Your task to perform on an android device: turn off javascript in the chrome app Image 0: 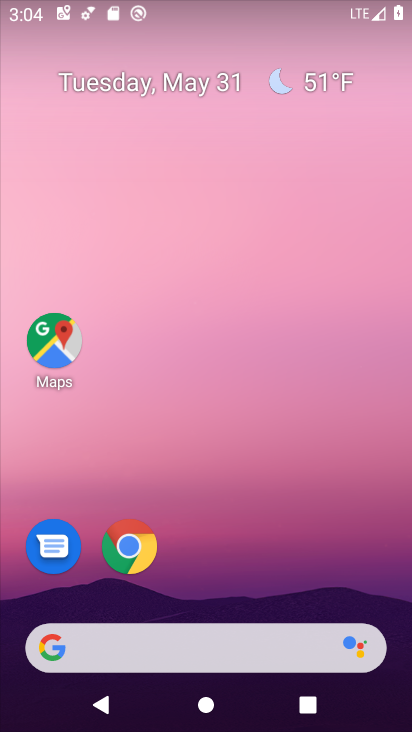
Step 0: click (135, 558)
Your task to perform on an android device: turn off javascript in the chrome app Image 1: 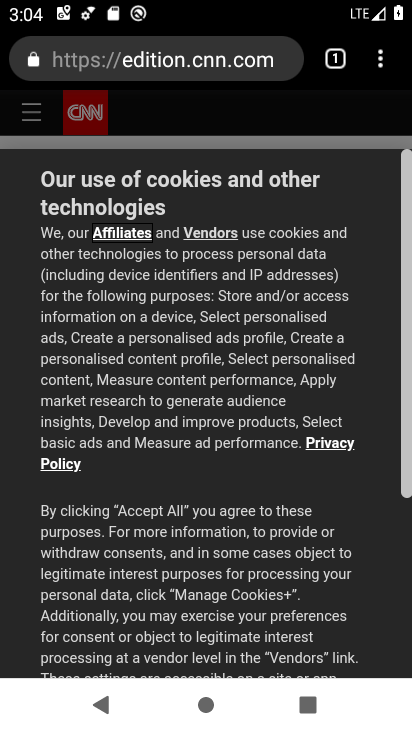
Step 1: click (383, 63)
Your task to perform on an android device: turn off javascript in the chrome app Image 2: 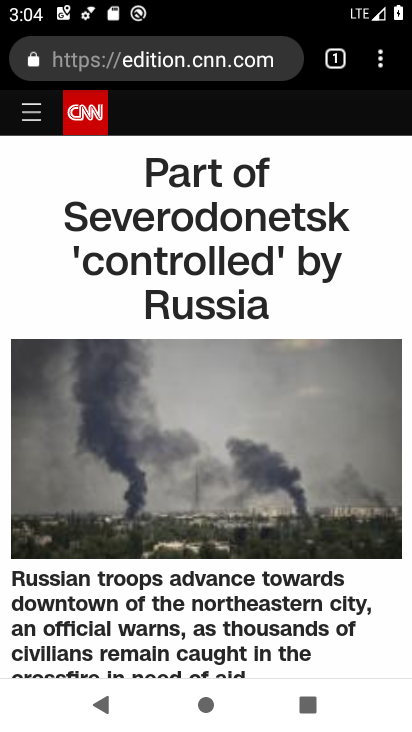
Step 2: click (385, 54)
Your task to perform on an android device: turn off javascript in the chrome app Image 3: 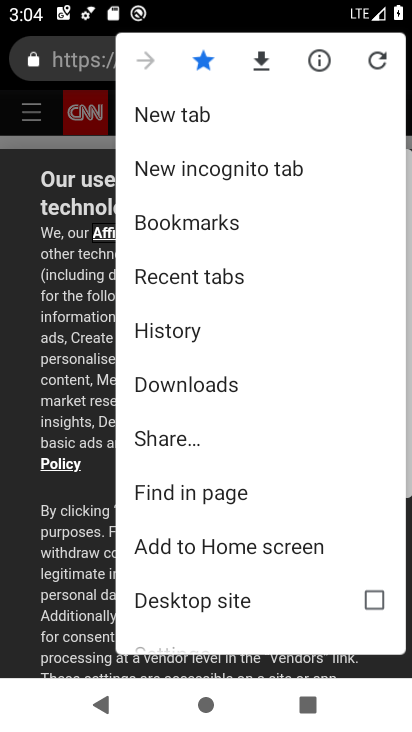
Step 3: drag from (229, 515) to (249, 172)
Your task to perform on an android device: turn off javascript in the chrome app Image 4: 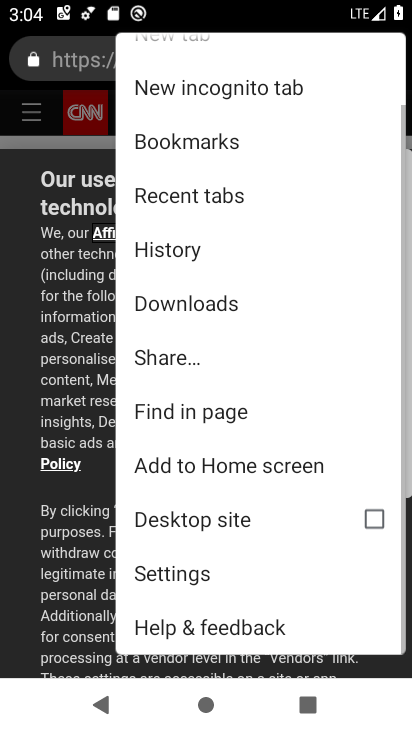
Step 4: click (214, 589)
Your task to perform on an android device: turn off javascript in the chrome app Image 5: 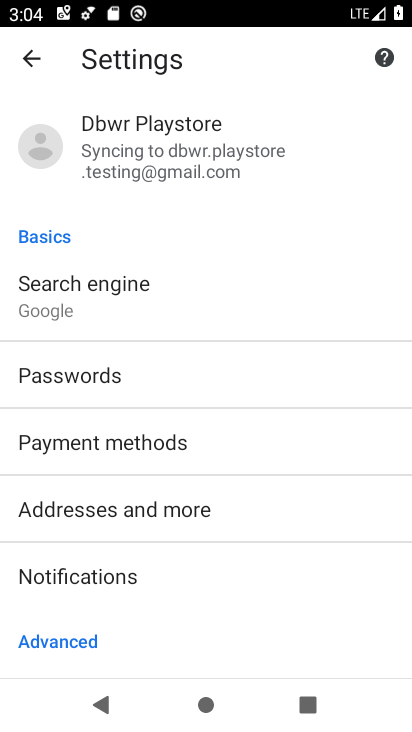
Step 5: drag from (217, 552) to (210, 299)
Your task to perform on an android device: turn off javascript in the chrome app Image 6: 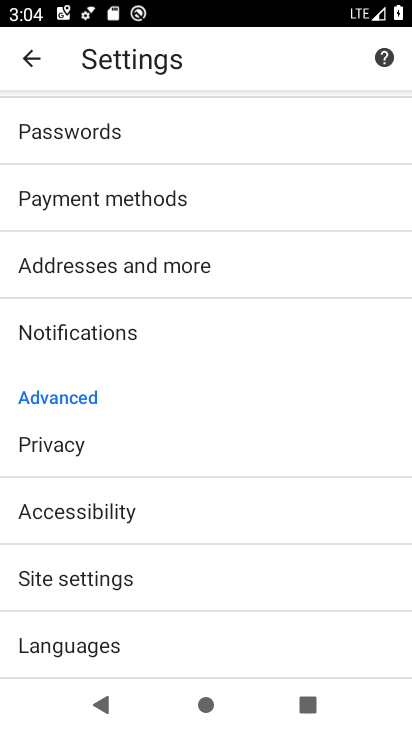
Step 6: click (147, 576)
Your task to perform on an android device: turn off javascript in the chrome app Image 7: 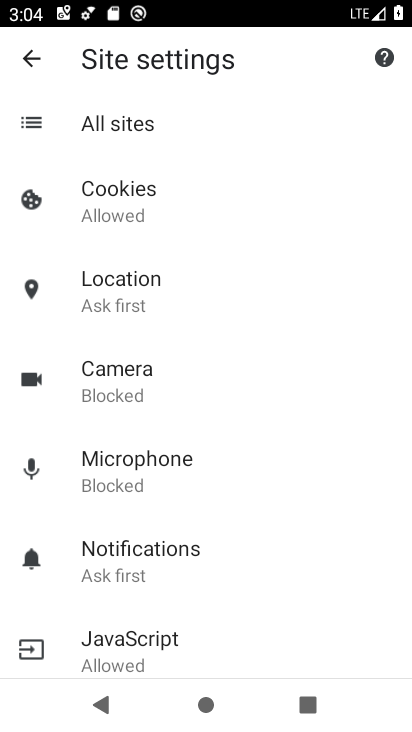
Step 7: click (180, 647)
Your task to perform on an android device: turn off javascript in the chrome app Image 8: 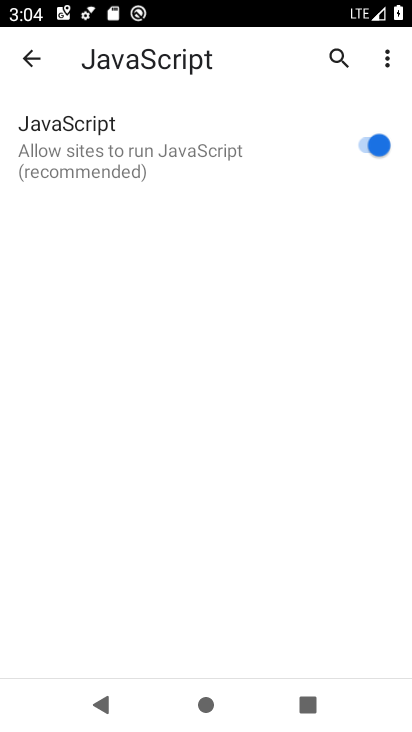
Step 8: click (377, 150)
Your task to perform on an android device: turn off javascript in the chrome app Image 9: 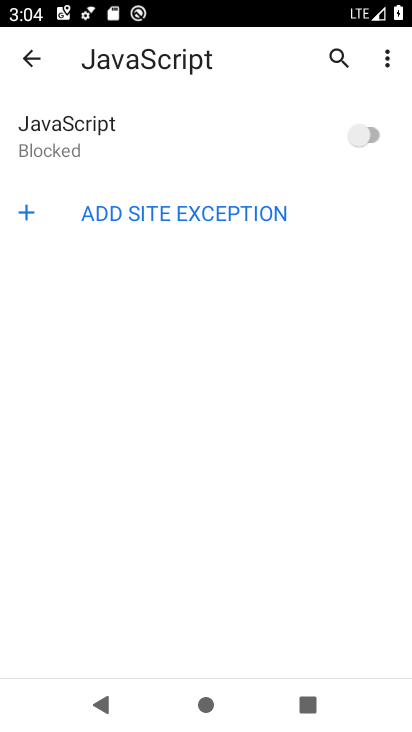
Step 9: task complete